Your task to perform on an android device: all mails in gmail Image 0: 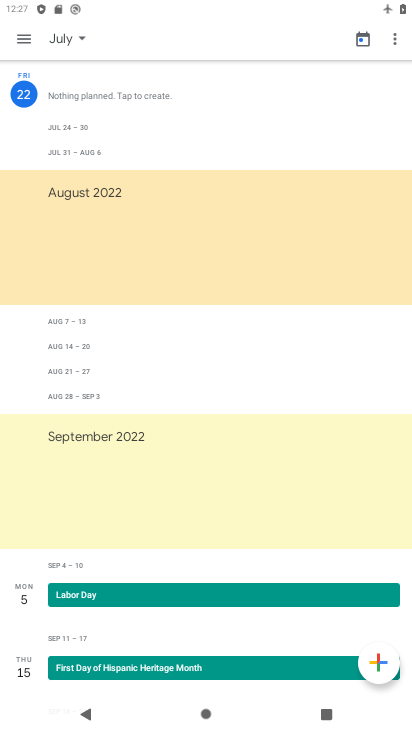
Step 0: drag from (260, 549) to (312, 44)
Your task to perform on an android device: all mails in gmail Image 1: 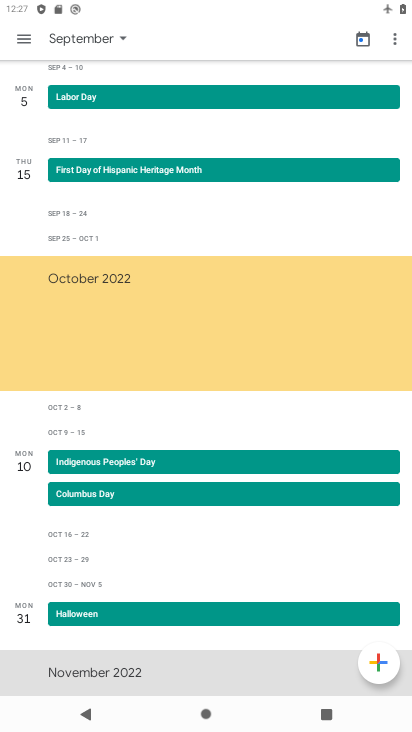
Step 1: press home button
Your task to perform on an android device: all mails in gmail Image 2: 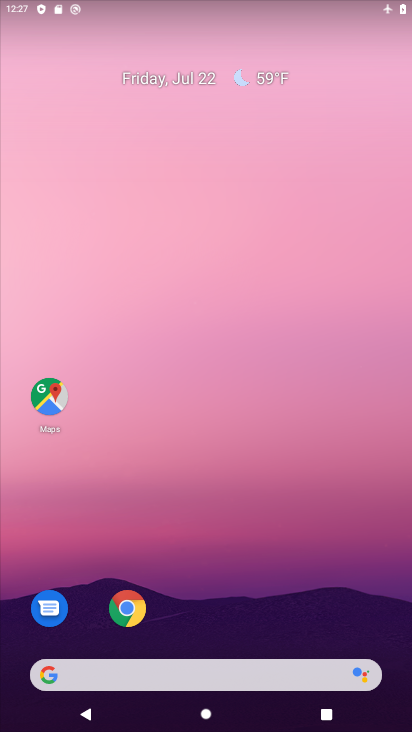
Step 2: drag from (178, 625) to (102, 0)
Your task to perform on an android device: all mails in gmail Image 3: 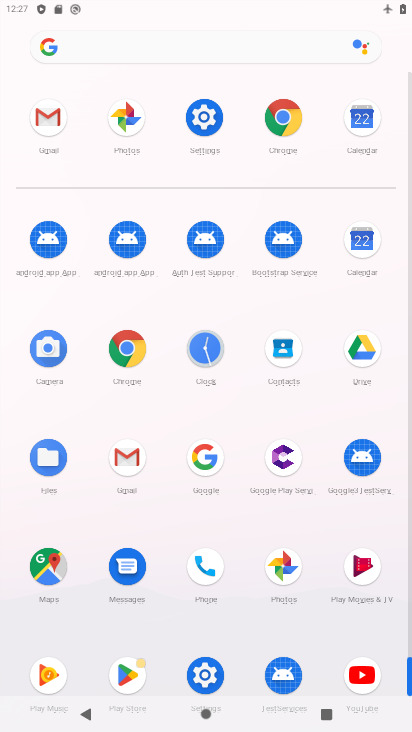
Step 3: click (131, 459)
Your task to perform on an android device: all mails in gmail Image 4: 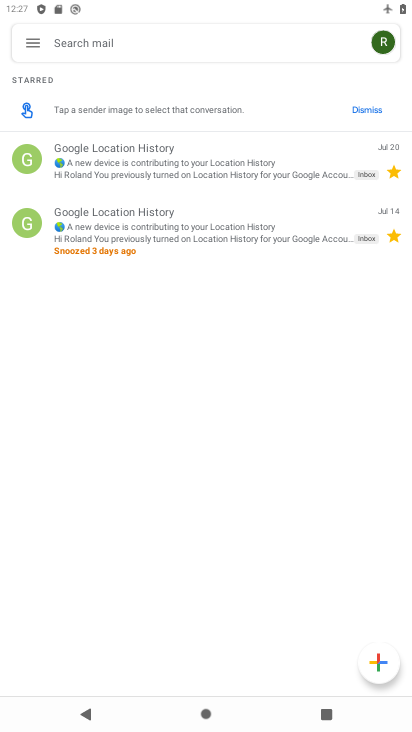
Step 4: click (27, 44)
Your task to perform on an android device: all mails in gmail Image 5: 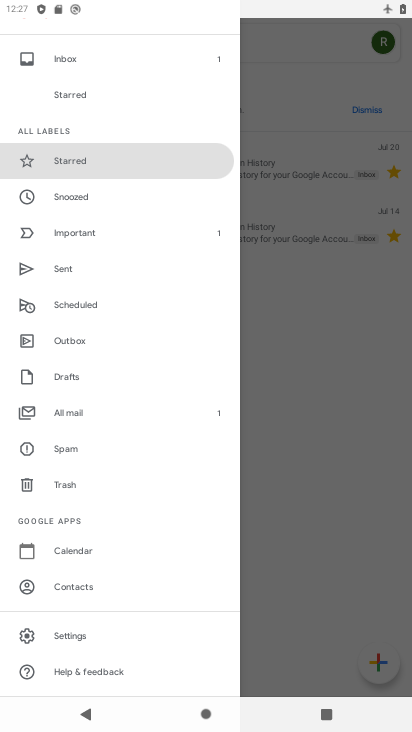
Step 5: click (77, 405)
Your task to perform on an android device: all mails in gmail Image 6: 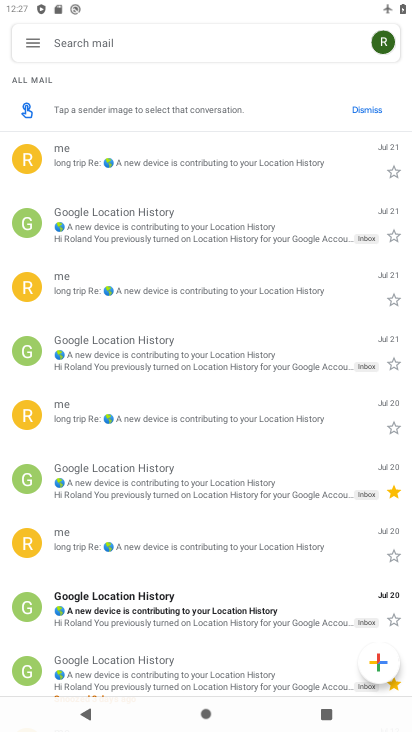
Step 6: task complete